Your task to perform on an android device: Is it going to rain tomorrow? Image 0: 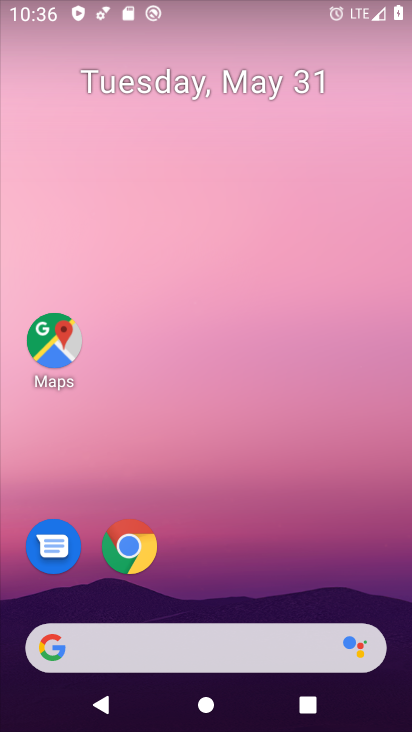
Step 0: drag from (87, 218) to (296, 163)
Your task to perform on an android device: Is it going to rain tomorrow? Image 1: 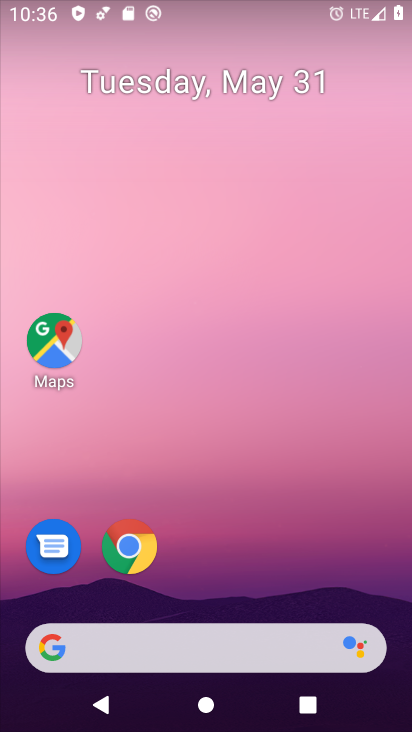
Step 1: drag from (118, 220) to (397, 214)
Your task to perform on an android device: Is it going to rain tomorrow? Image 2: 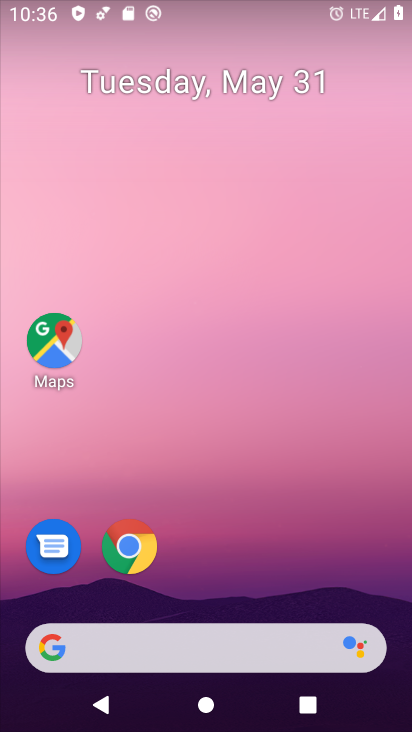
Step 2: drag from (2, 185) to (410, 191)
Your task to perform on an android device: Is it going to rain tomorrow? Image 3: 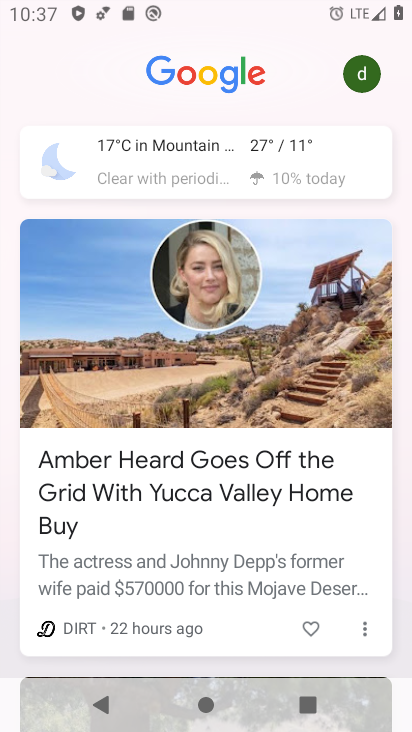
Step 3: click (311, 166)
Your task to perform on an android device: Is it going to rain tomorrow? Image 4: 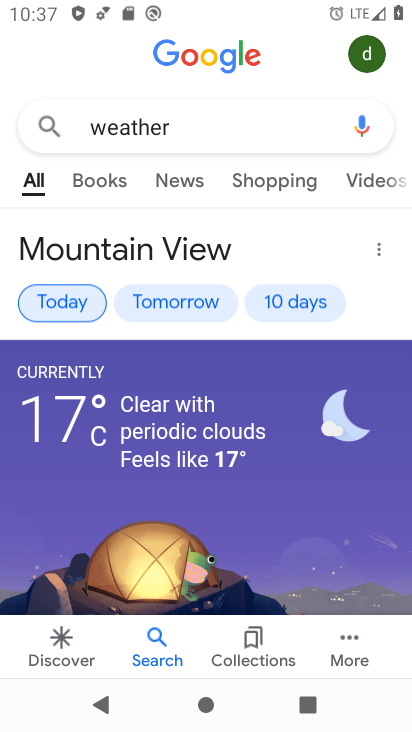
Step 4: click (186, 296)
Your task to perform on an android device: Is it going to rain tomorrow? Image 5: 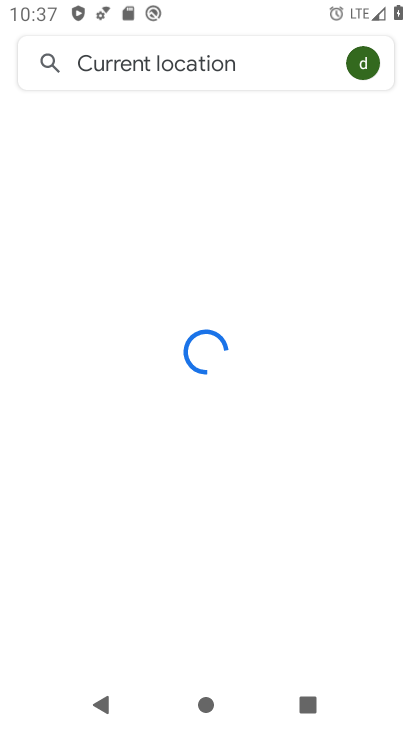
Step 5: task complete